Your task to perform on an android device: toggle pop-ups in chrome Image 0: 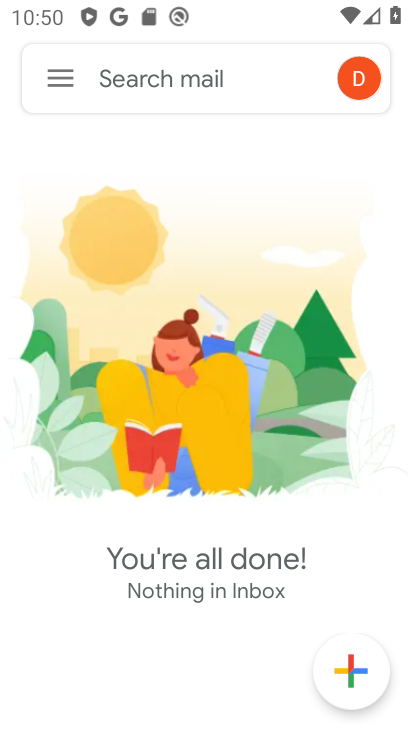
Step 0: press back button
Your task to perform on an android device: toggle pop-ups in chrome Image 1: 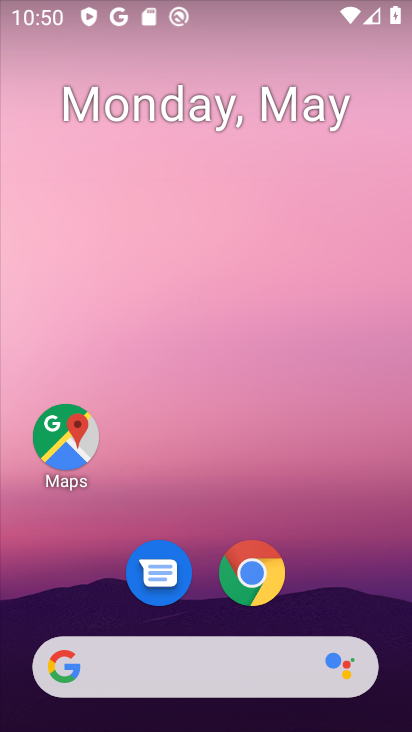
Step 1: click (246, 589)
Your task to perform on an android device: toggle pop-ups in chrome Image 2: 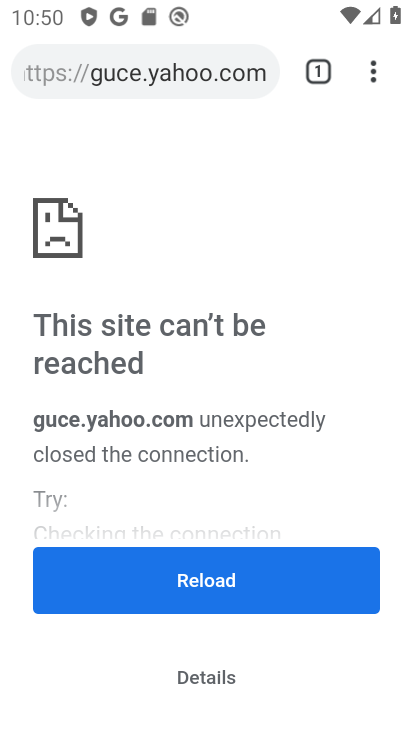
Step 2: click (202, 587)
Your task to perform on an android device: toggle pop-ups in chrome Image 3: 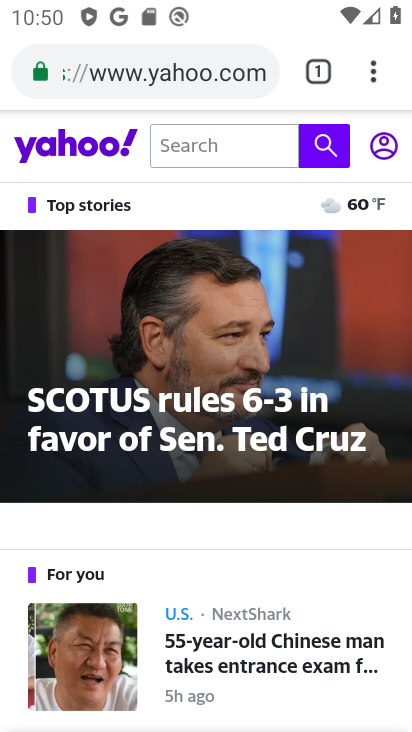
Step 3: click (375, 73)
Your task to perform on an android device: toggle pop-ups in chrome Image 4: 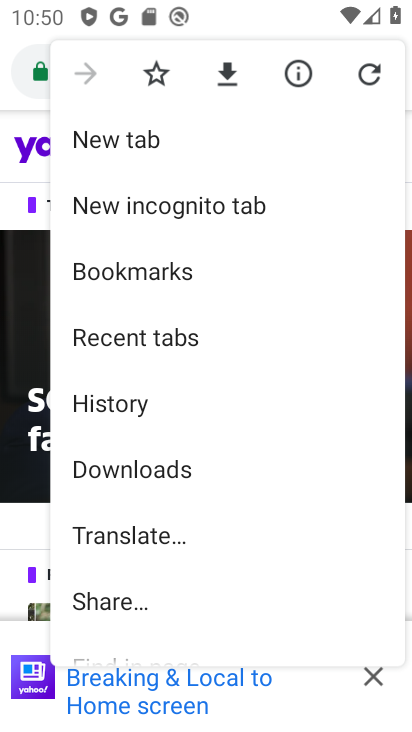
Step 4: drag from (252, 581) to (311, 75)
Your task to perform on an android device: toggle pop-ups in chrome Image 5: 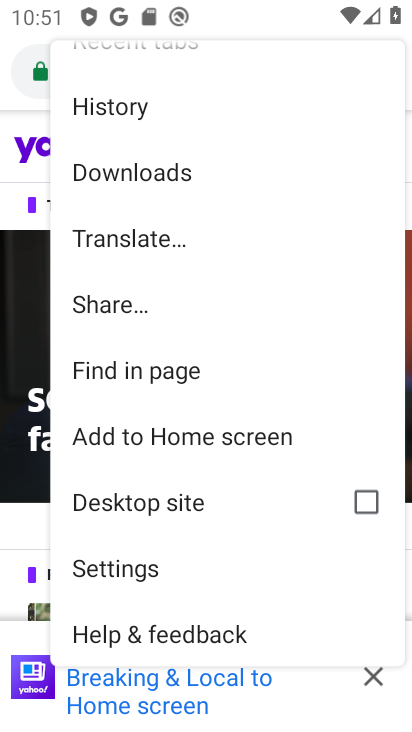
Step 5: click (163, 565)
Your task to perform on an android device: toggle pop-ups in chrome Image 6: 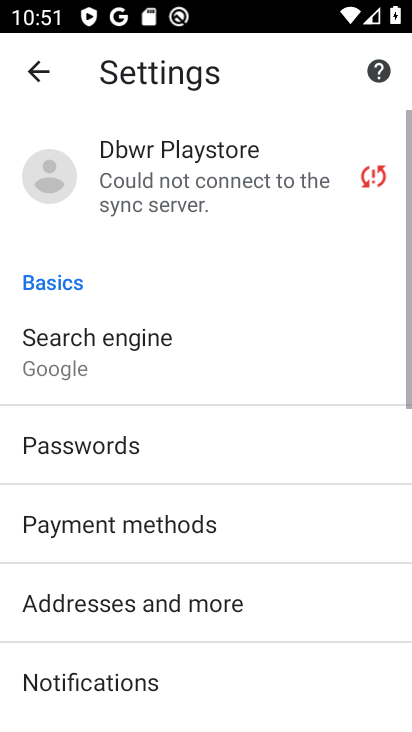
Step 6: drag from (170, 529) to (236, 79)
Your task to perform on an android device: toggle pop-ups in chrome Image 7: 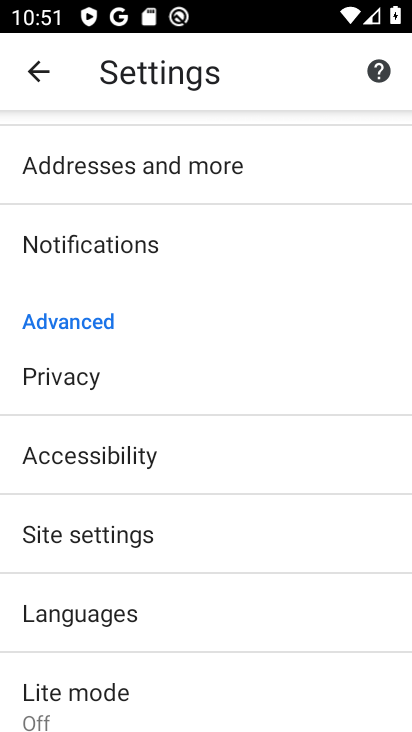
Step 7: click (140, 528)
Your task to perform on an android device: toggle pop-ups in chrome Image 8: 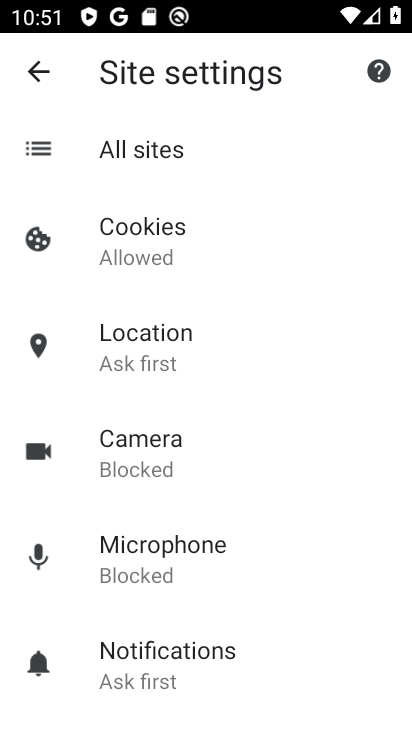
Step 8: drag from (184, 644) to (264, 202)
Your task to perform on an android device: toggle pop-ups in chrome Image 9: 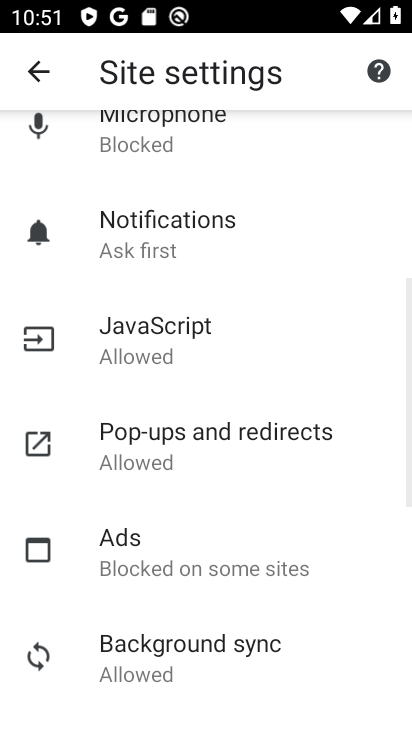
Step 9: click (187, 460)
Your task to perform on an android device: toggle pop-ups in chrome Image 10: 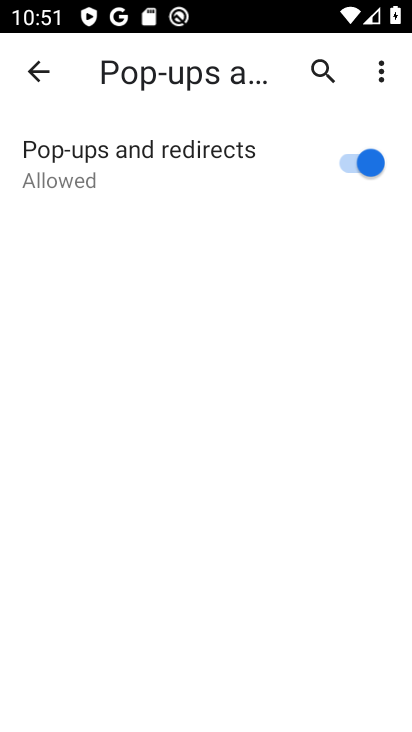
Step 10: click (355, 167)
Your task to perform on an android device: toggle pop-ups in chrome Image 11: 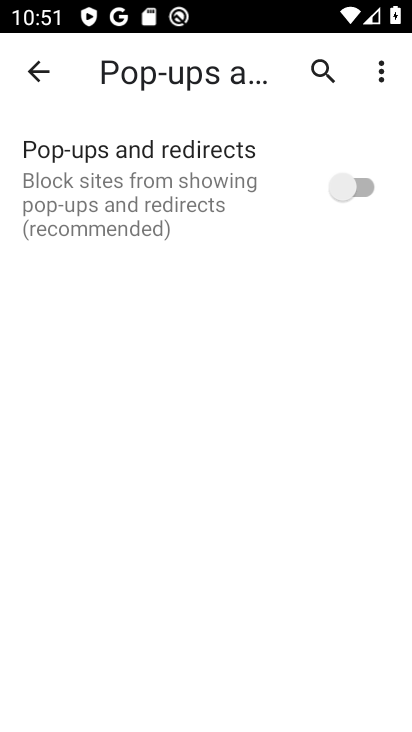
Step 11: task complete